Your task to perform on an android device: Open eBay Image 0: 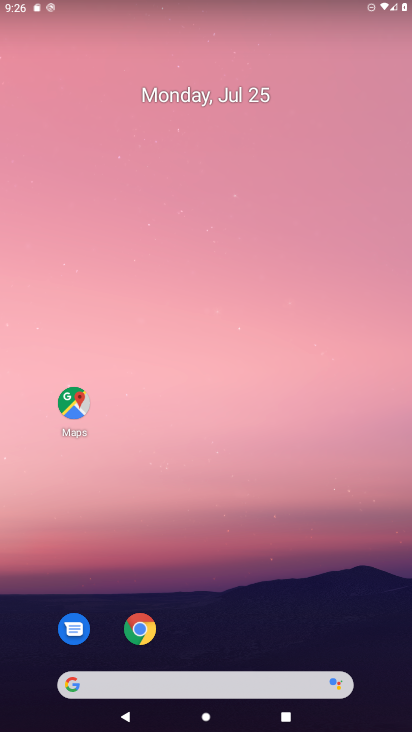
Step 0: click (215, 683)
Your task to perform on an android device: Open eBay Image 1: 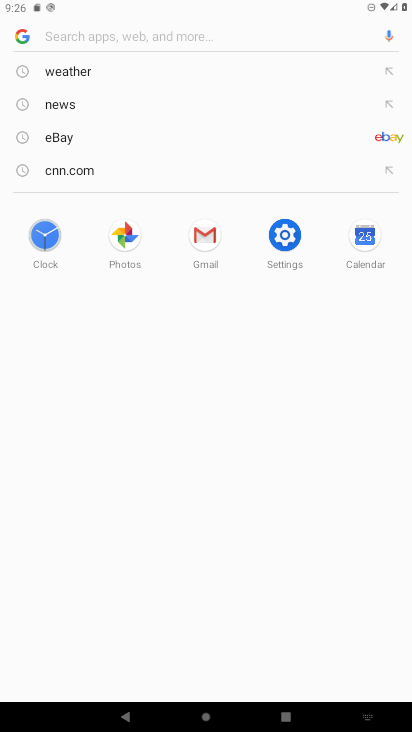
Step 1: click (40, 145)
Your task to perform on an android device: Open eBay Image 2: 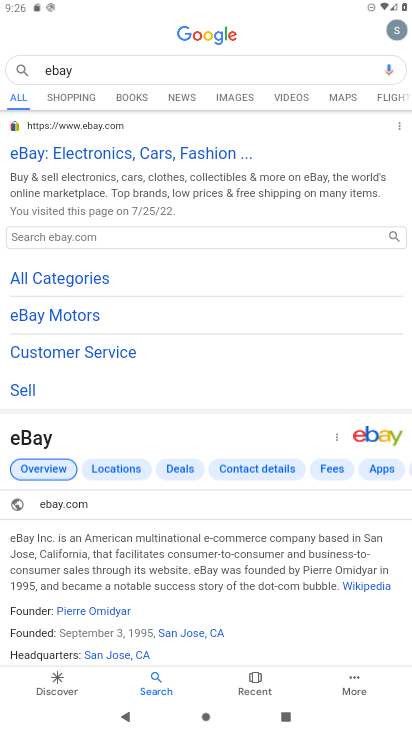
Step 2: click (88, 155)
Your task to perform on an android device: Open eBay Image 3: 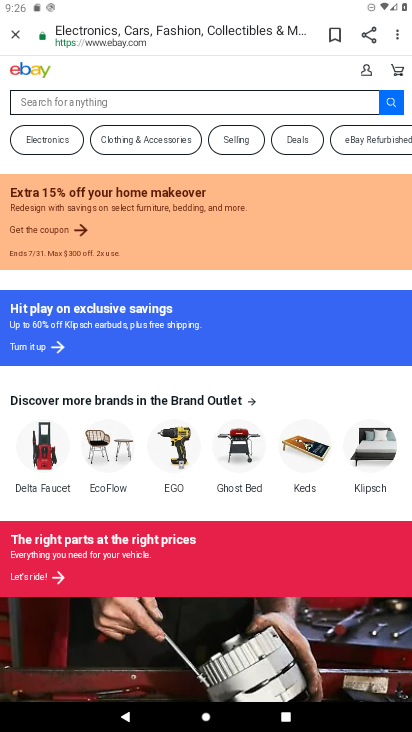
Step 3: task complete